Your task to perform on an android device: turn vacation reply on in the gmail app Image 0: 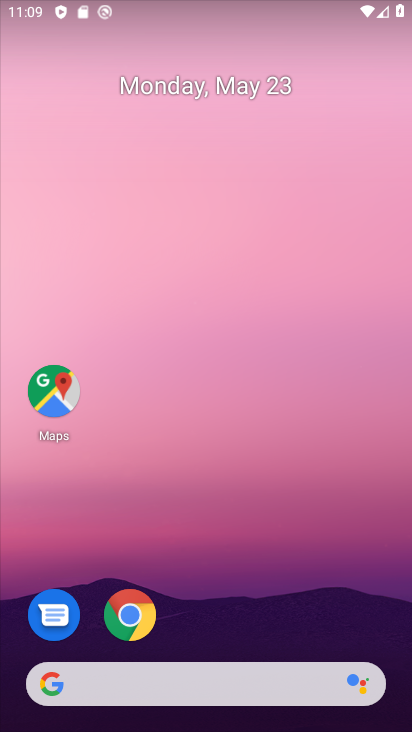
Step 0: click (243, 2)
Your task to perform on an android device: turn vacation reply on in the gmail app Image 1: 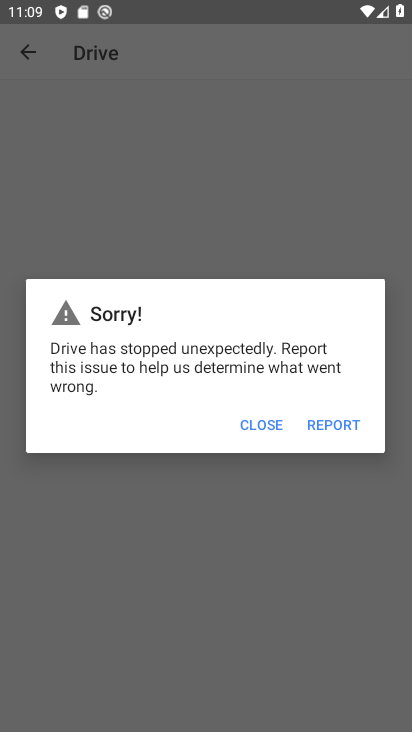
Step 1: press home button
Your task to perform on an android device: turn vacation reply on in the gmail app Image 2: 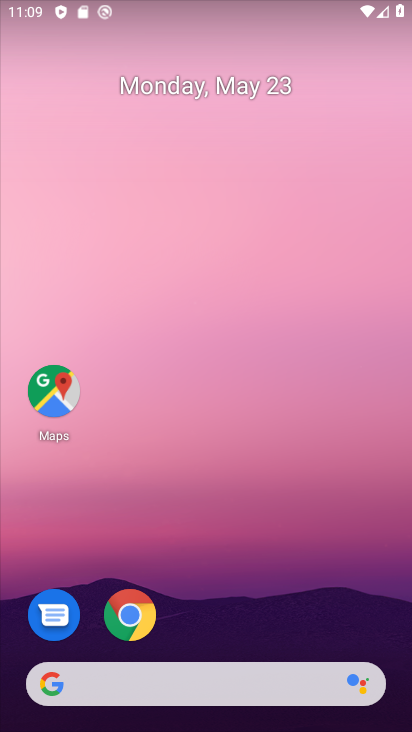
Step 2: drag from (248, 615) to (254, 151)
Your task to perform on an android device: turn vacation reply on in the gmail app Image 3: 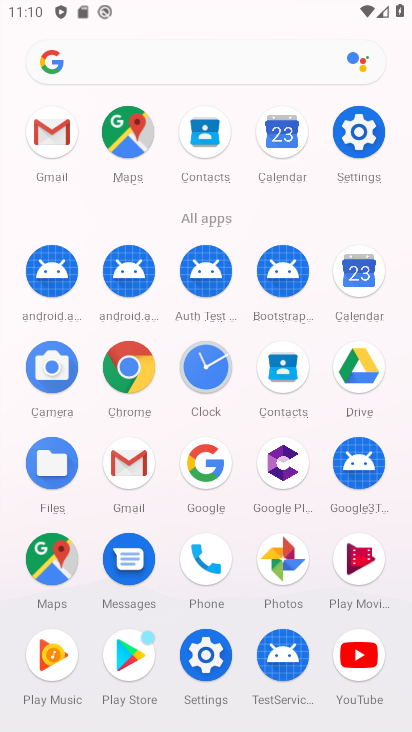
Step 3: click (67, 110)
Your task to perform on an android device: turn vacation reply on in the gmail app Image 4: 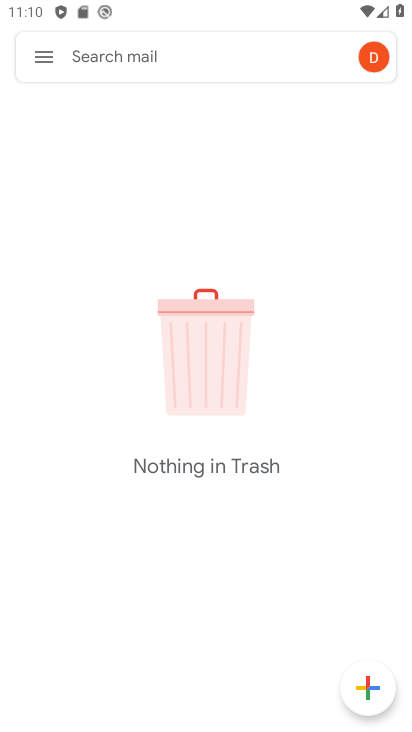
Step 4: click (47, 70)
Your task to perform on an android device: turn vacation reply on in the gmail app Image 5: 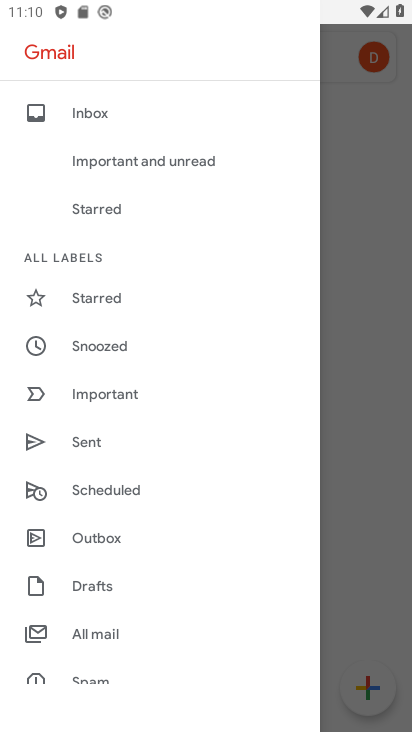
Step 5: drag from (63, 656) to (171, 137)
Your task to perform on an android device: turn vacation reply on in the gmail app Image 6: 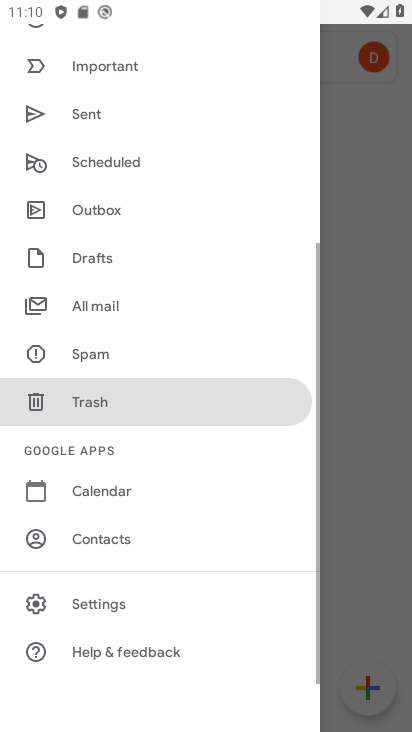
Step 6: click (34, 618)
Your task to perform on an android device: turn vacation reply on in the gmail app Image 7: 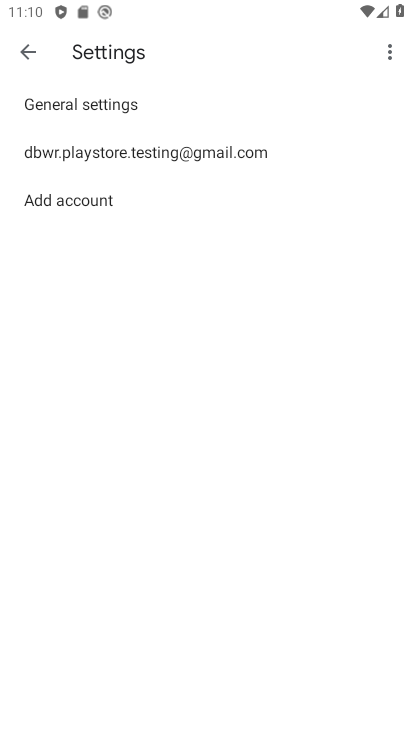
Step 7: click (189, 175)
Your task to perform on an android device: turn vacation reply on in the gmail app Image 8: 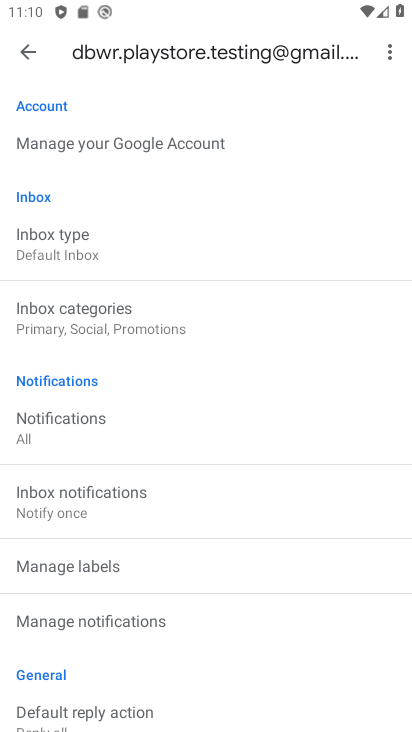
Step 8: drag from (115, 667) to (204, 172)
Your task to perform on an android device: turn vacation reply on in the gmail app Image 9: 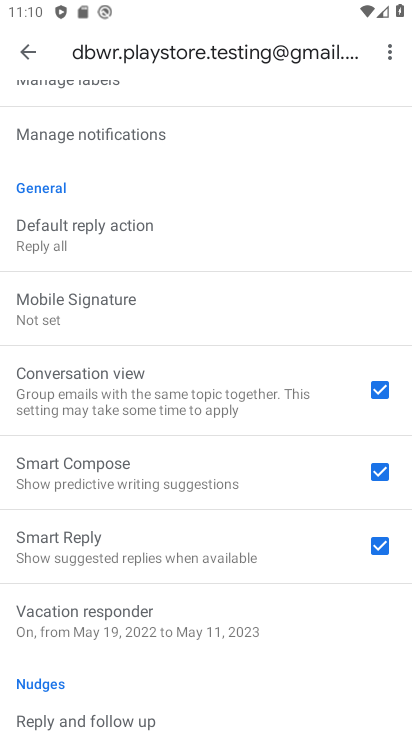
Step 9: click (92, 633)
Your task to perform on an android device: turn vacation reply on in the gmail app Image 10: 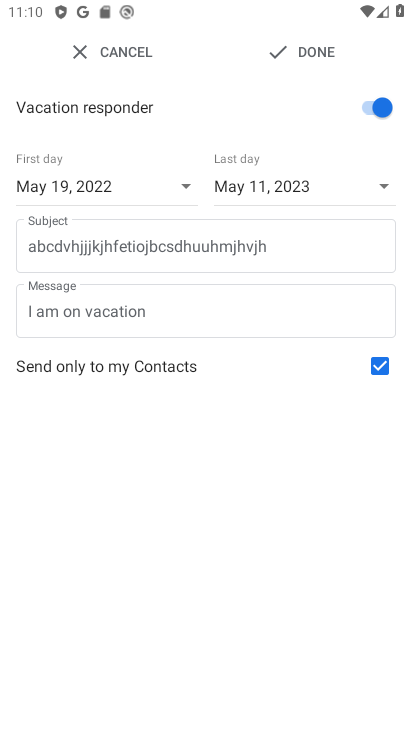
Step 10: click (313, 53)
Your task to perform on an android device: turn vacation reply on in the gmail app Image 11: 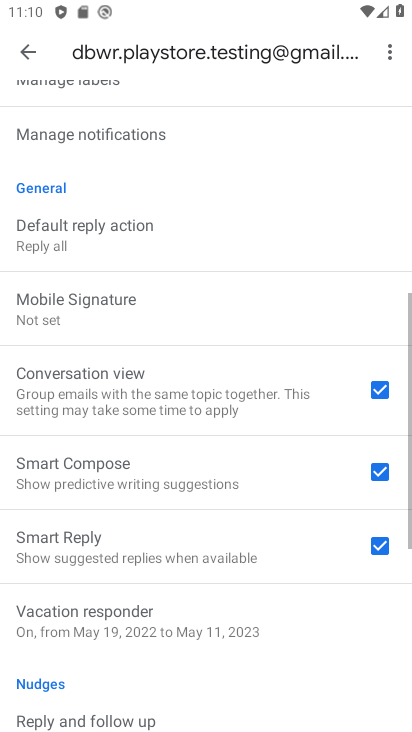
Step 11: task complete